Your task to perform on an android device: turn off notifications in google photos Image 0: 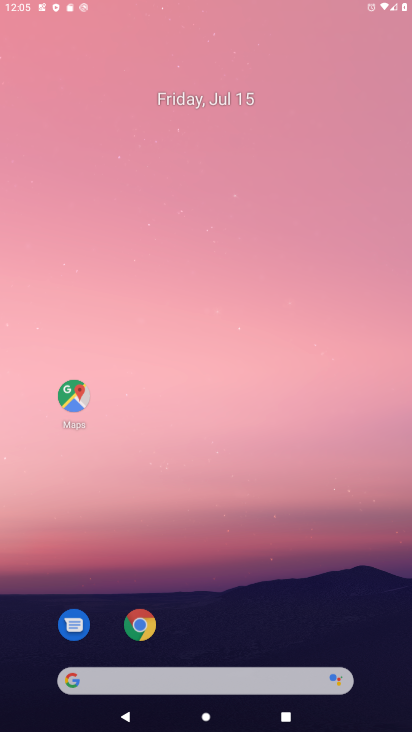
Step 0: press home button
Your task to perform on an android device: turn off notifications in google photos Image 1: 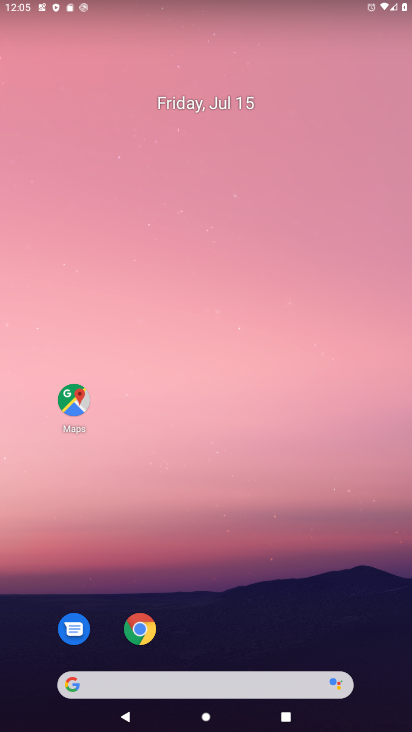
Step 1: drag from (262, 626) to (393, 39)
Your task to perform on an android device: turn off notifications in google photos Image 2: 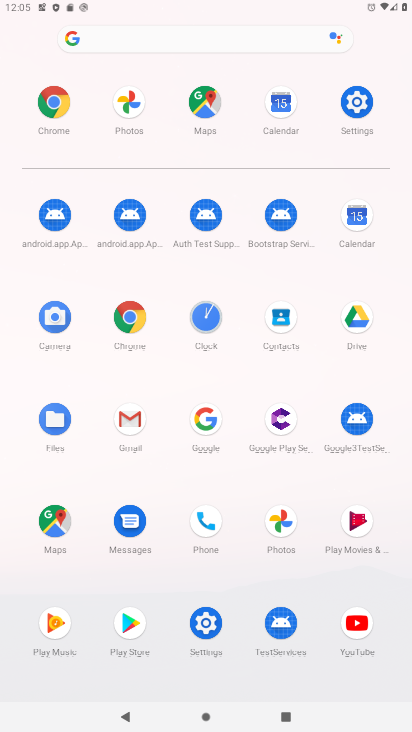
Step 2: click (126, 95)
Your task to perform on an android device: turn off notifications in google photos Image 3: 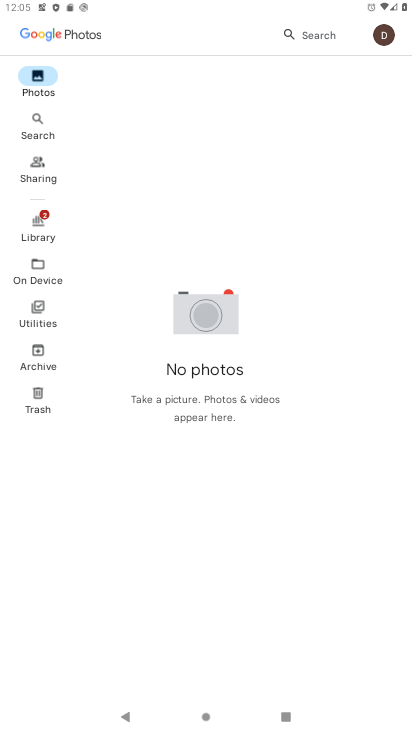
Step 3: click (377, 33)
Your task to perform on an android device: turn off notifications in google photos Image 4: 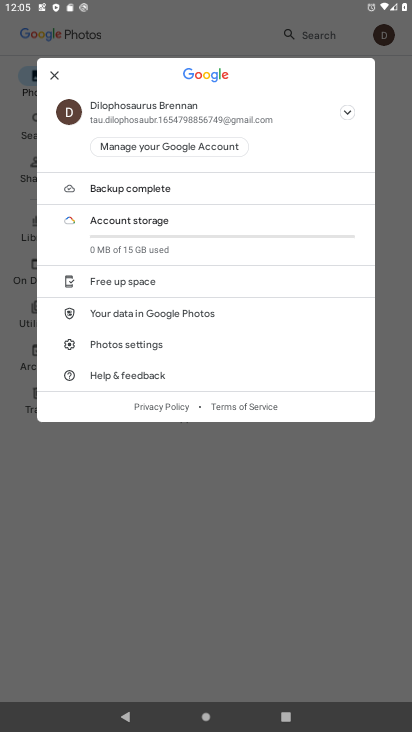
Step 4: click (123, 344)
Your task to perform on an android device: turn off notifications in google photos Image 5: 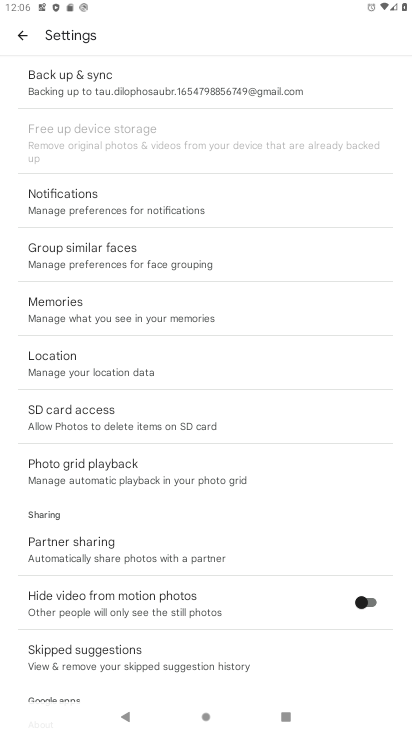
Step 5: click (64, 197)
Your task to perform on an android device: turn off notifications in google photos Image 6: 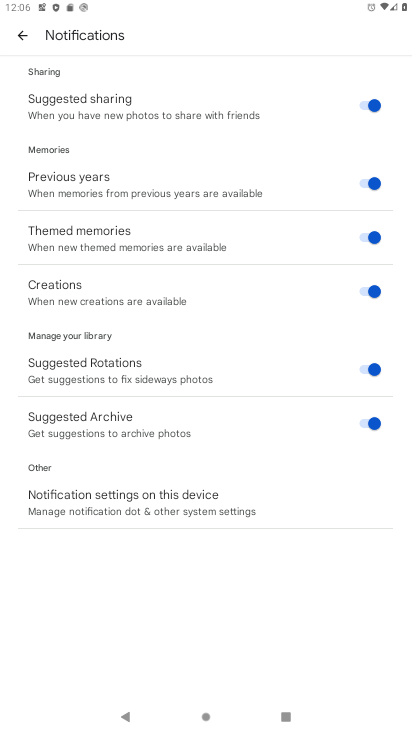
Step 6: click (371, 106)
Your task to perform on an android device: turn off notifications in google photos Image 7: 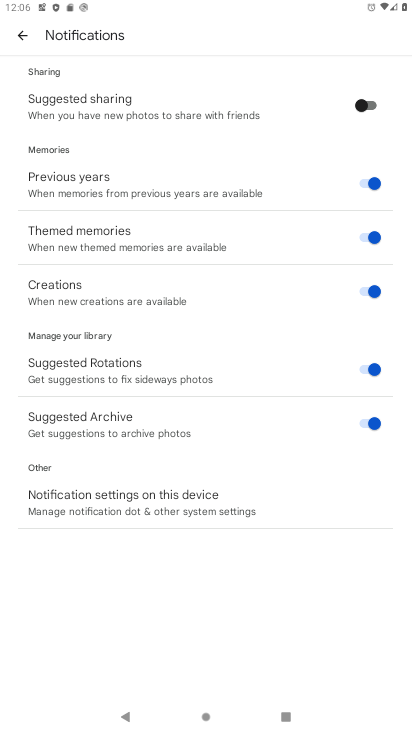
Step 7: task complete